Your task to perform on an android device: empty trash in google photos Image 0: 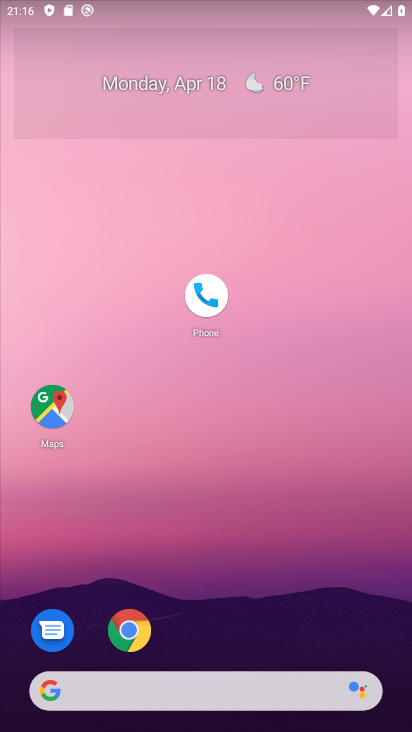
Step 0: drag from (298, 582) to (387, 77)
Your task to perform on an android device: empty trash in google photos Image 1: 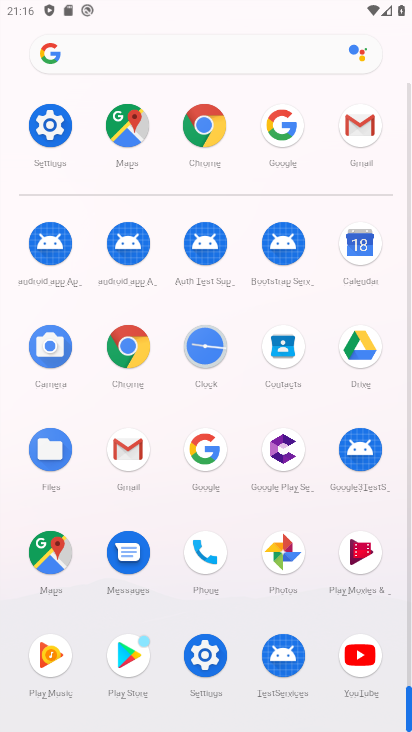
Step 1: click (274, 560)
Your task to perform on an android device: empty trash in google photos Image 2: 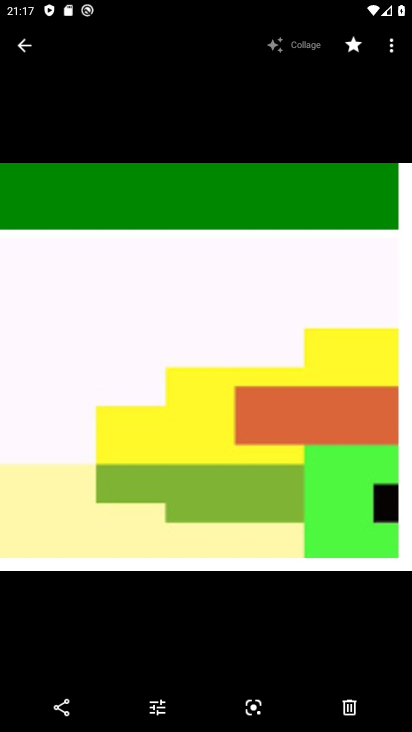
Step 2: click (25, 52)
Your task to perform on an android device: empty trash in google photos Image 3: 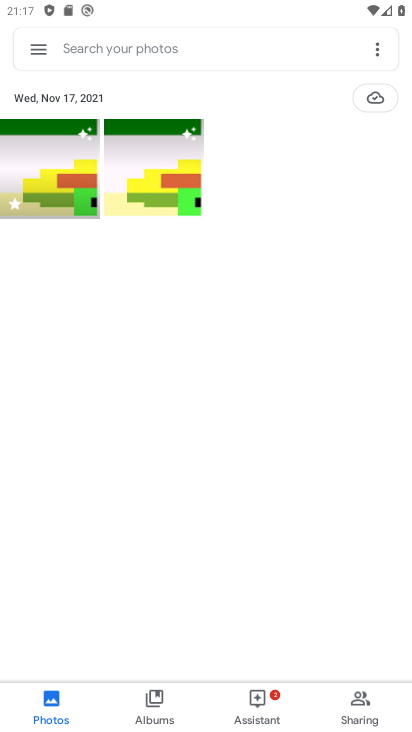
Step 3: click (46, 44)
Your task to perform on an android device: empty trash in google photos Image 4: 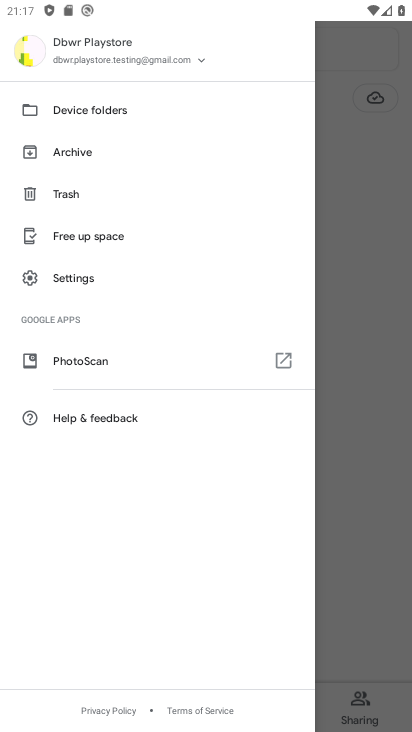
Step 4: click (84, 190)
Your task to perform on an android device: empty trash in google photos Image 5: 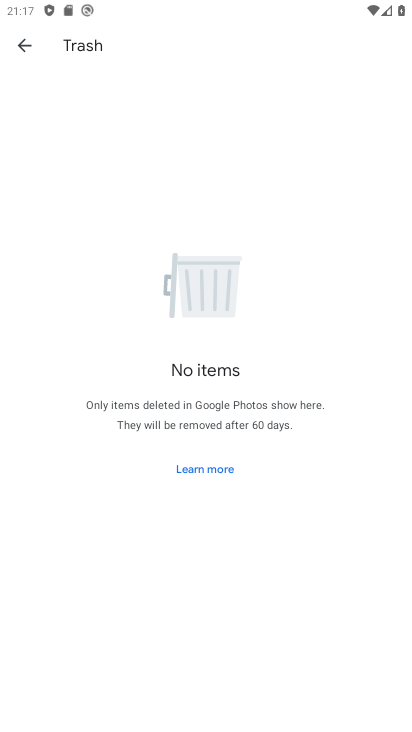
Step 5: task complete